Your task to perform on an android device: move an email to a new category in the gmail app Image 0: 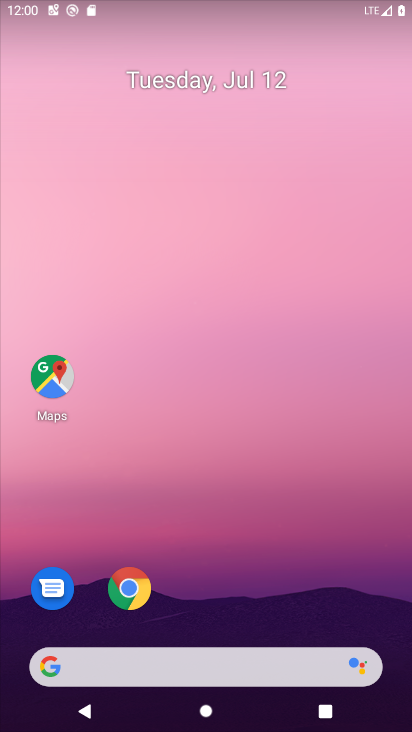
Step 0: drag from (243, 637) to (188, 375)
Your task to perform on an android device: move an email to a new category in the gmail app Image 1: 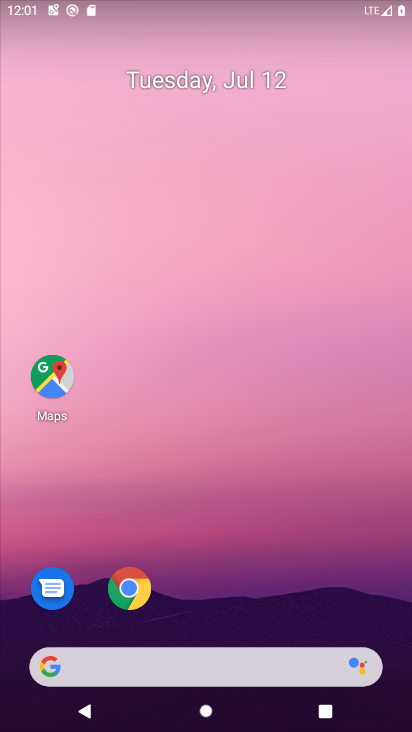
Step 1: drag from (263, 648) to (152, 274)
Your task to perform on an android device: move an email to a new category in the gmail app Image 2: 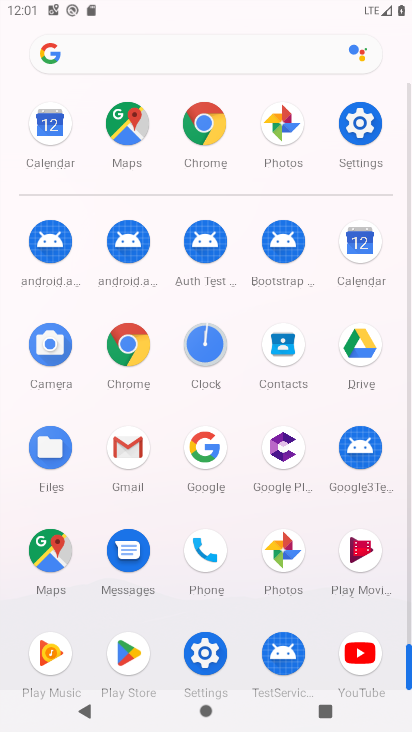
Step 2: click (128, 454)
Your task to perform on an android device: move an email to a new category in the gmail app Image 3: 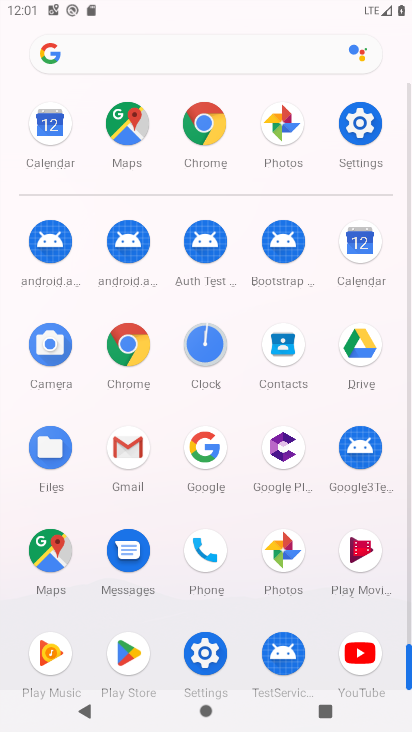
Step 3: click (137, 453)
Your task to perform on an android device: move an email to a new category in the gmail app Image 4: 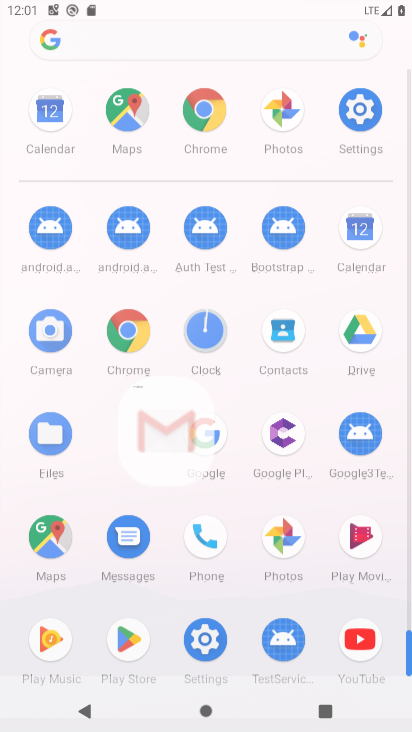
Step 4: click (139, 453)
Your task to perform on an android device: move an email to a new category in the gmail app Image 5: 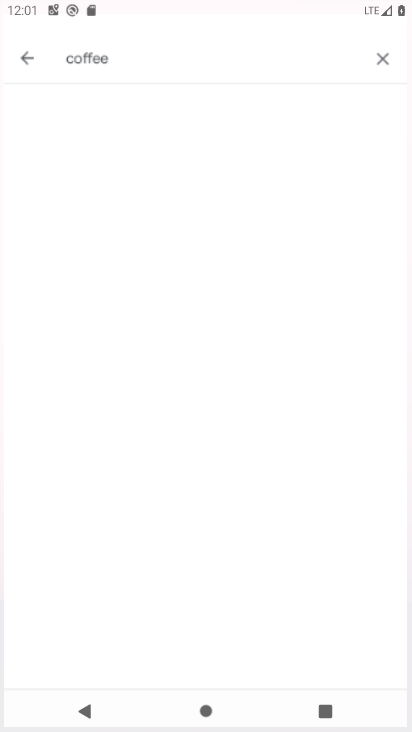
Step 5: click (142, 452)
Your task to perform on an android device: move an email to a new category in the gmail app Image 6: 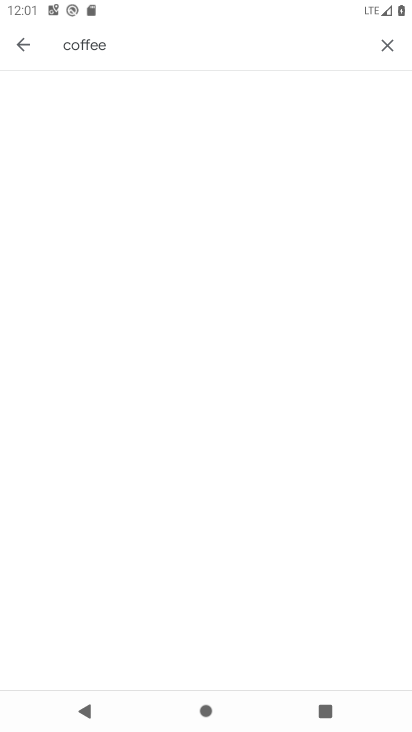
Step 6: click (143, 451)
Your task to perform on an android device: move an email to a new category in the gmail app Image 7: 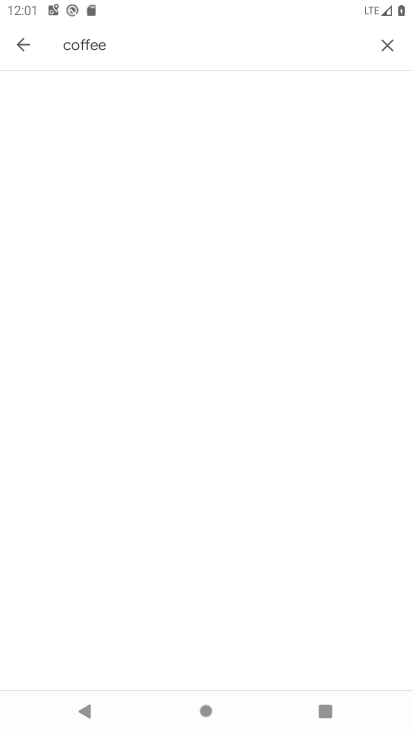
Step 7: click (18, 48)
Your task to perform on an android device: move an email to a new category in the gmail app Image 8: 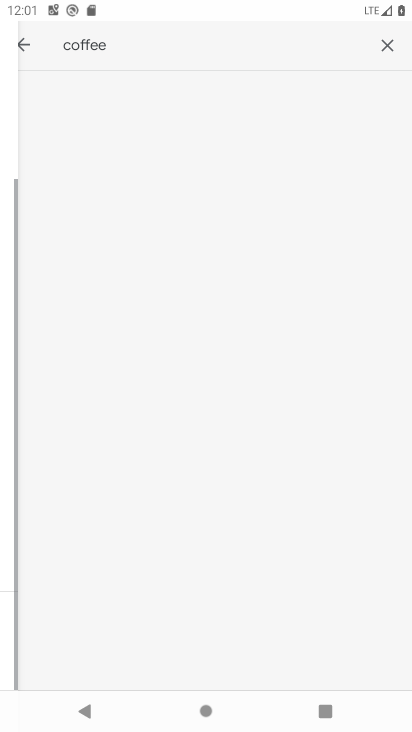
Step 8: click (16, 57)
Your task to perform on an android device: move an email to a new category in the gmail app Image 9: 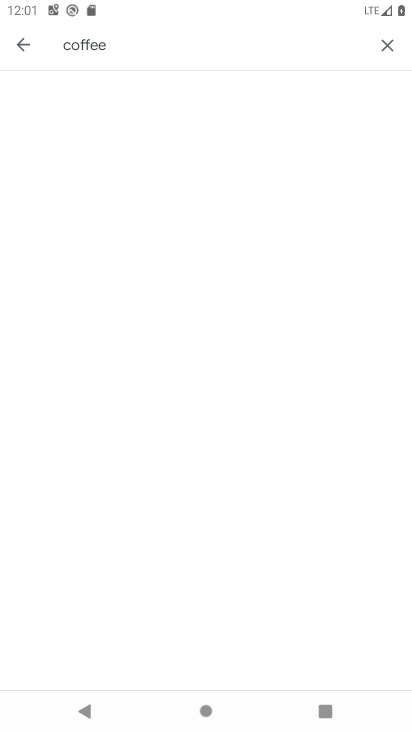
Step 9: click (22, 43)
Your task to perform on an android device: move an email to a new category in the gmail app Image 10: 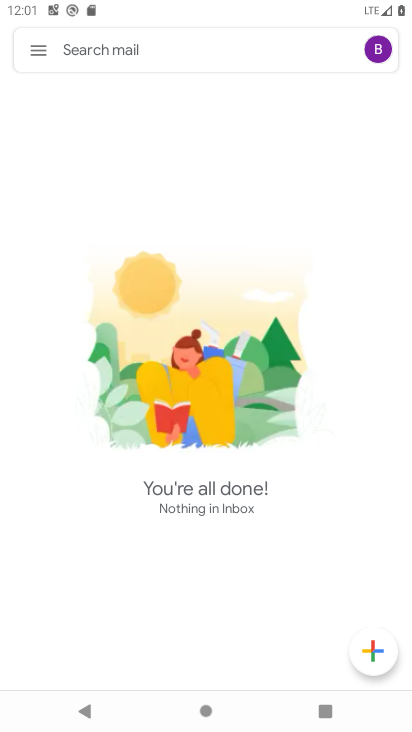
Step 10: click (22, 43)
Your task to perform on an android device: move an email to a new category in the gmail app Image 11: 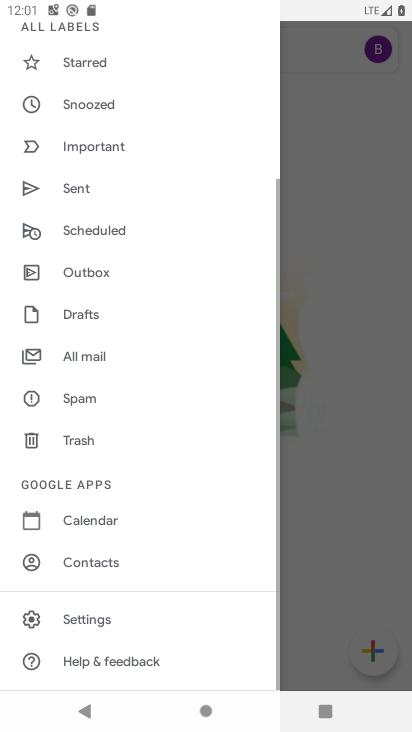
Step 11: click (32, 41)
Your task to perform on an android device: move an email to a new category in the gmail app Image 12: 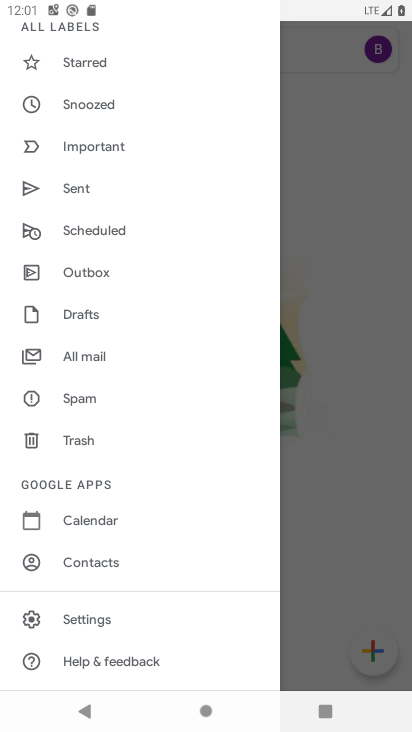
Step 12: click (35, 44)
Your task to perform on an android device: move an email to a new category in the gmail app Image 13: 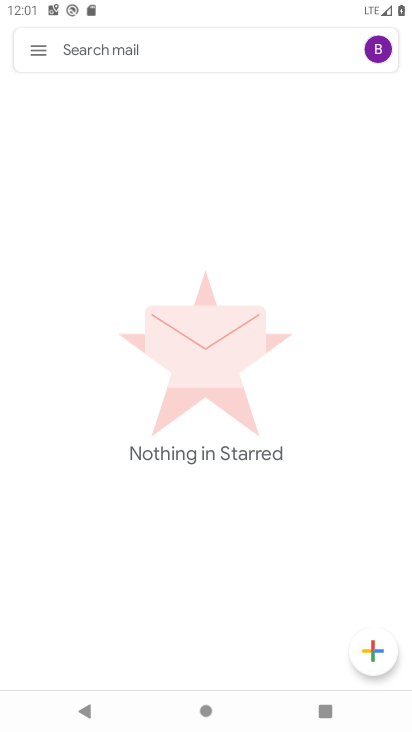
Step 13: click (80, 356)
Your task to perform on an android device: move an email to a new category in the gmail app Image 14: 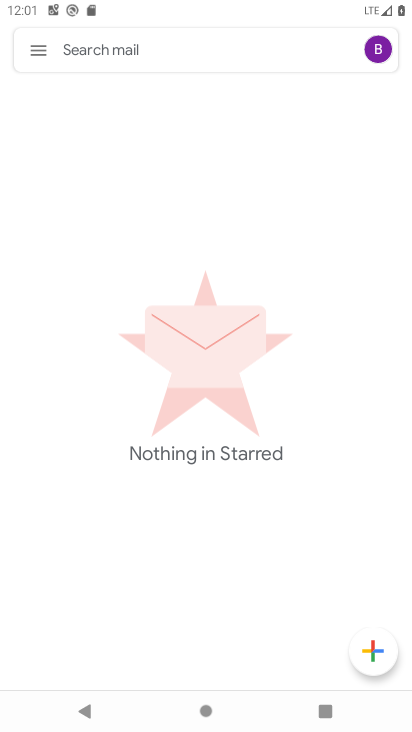
Step 14: click (82, 353)
Your task to perform on an android device: move an email to a new category in the gmail app Image 15: 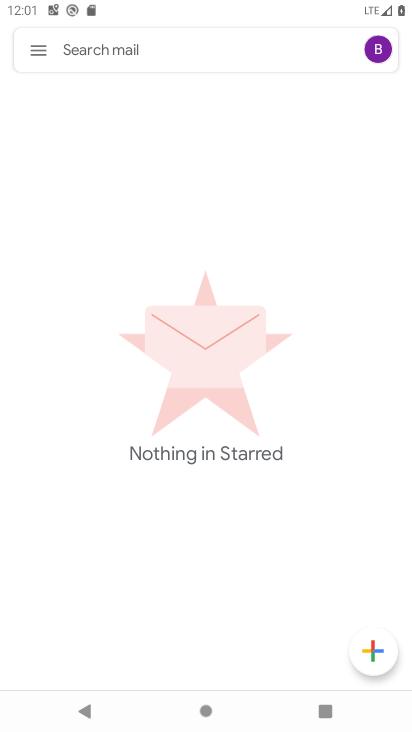
Step 15: click (86, 351)
Your task to perform on an android device: move an email to a new category in the gmail app Image 16: 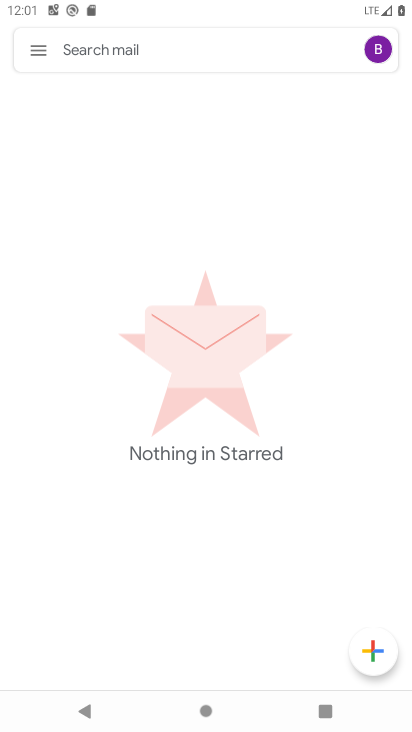
Step 16: click (27, 47)
Your task to perform on an android device: move an email to a new category in the gmail app Image 17: 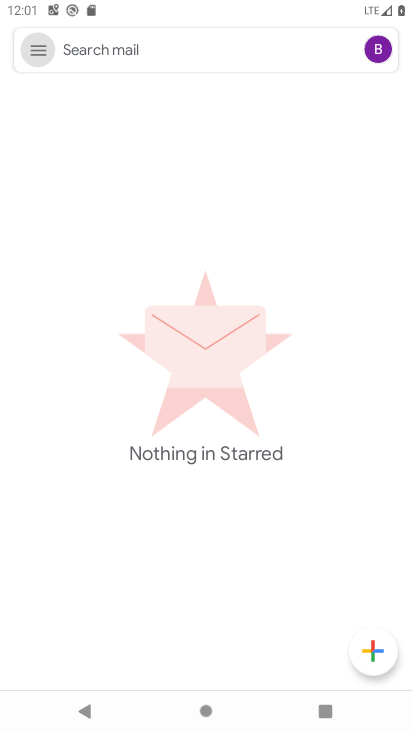
Step 17: click (41, 50)
Your task to perform on an android device: move an email to a new category in the gmail app Image 18: 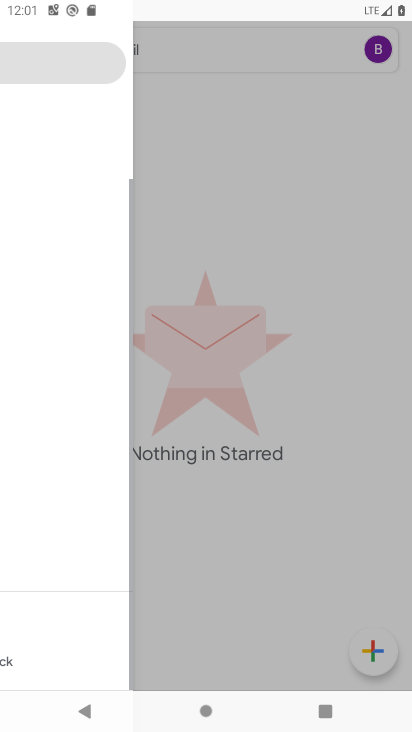
Step 18: click (43, 50)
Your task to perform on an android device: move an email to a new category in the gmail app Image 19: 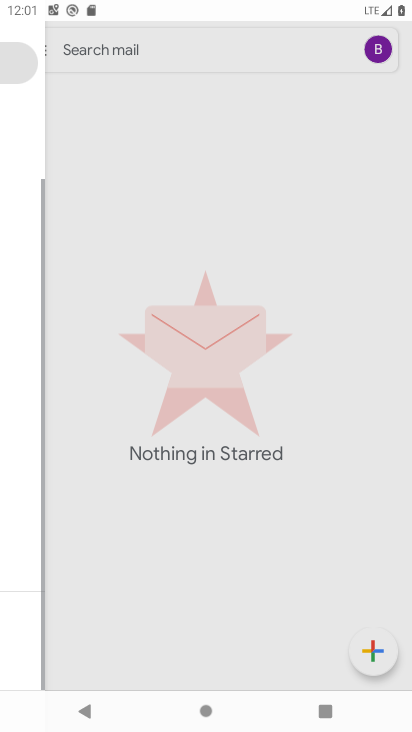
Step 19: click (44, 51)
Your task to perform on an android device: move an email to a new category in the gmail app Image 20: 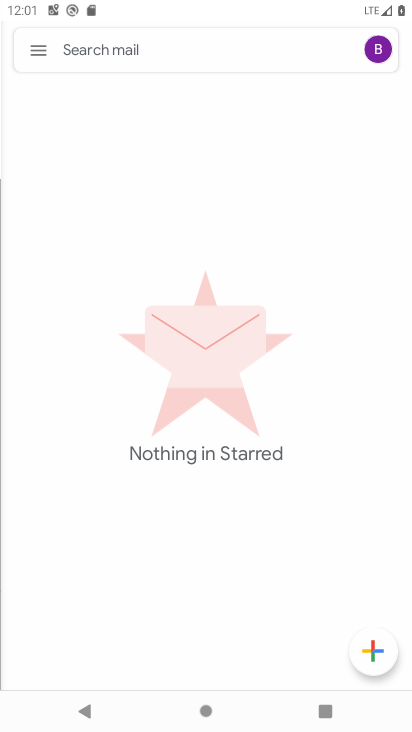
Step 20: click (43, 53)
Your task to perform on an android device: move an email to a new category in the gmail app Image 21: 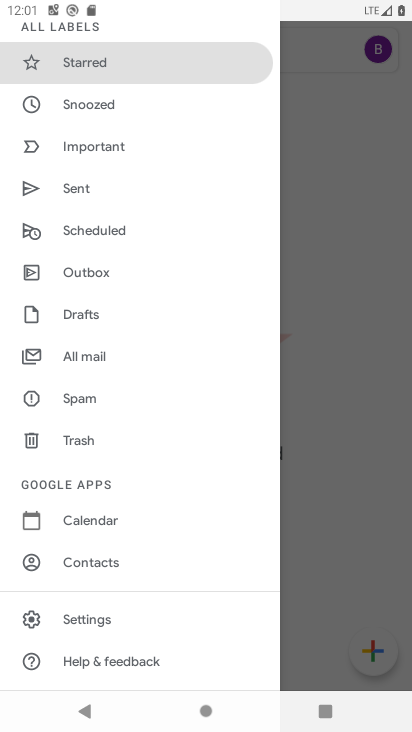
Step 21: click (77, 344)
Your task to perform on an android device: move an email to a new category in the gmail app Image 22: 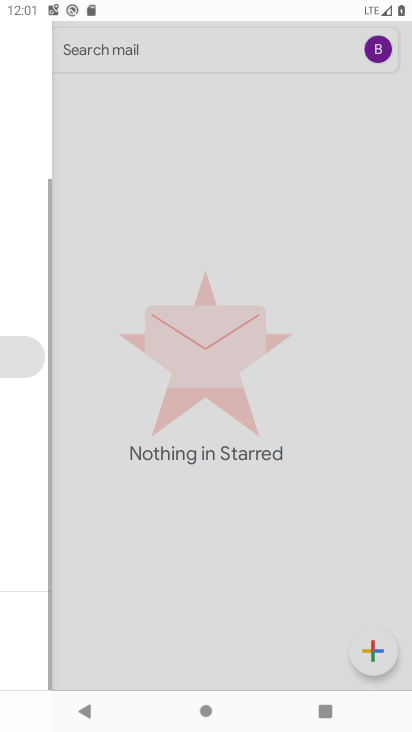
Step 22: click (77, 343)
Your task to perform on an android device: move an email to a new category in the gmail app Image 23: 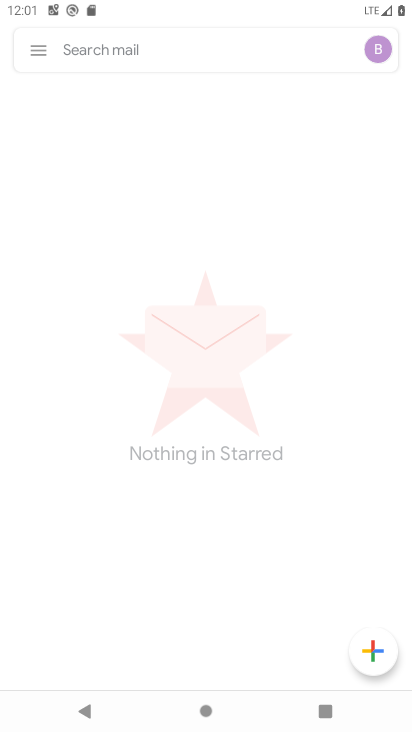
Step 23: click (77, 343)
Your task to perform on an android device: move an email to a new category in the gmail app Image 24: 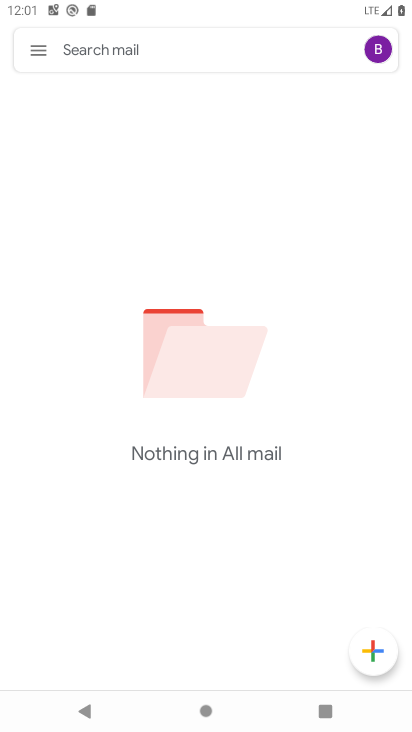
Step 24: task complete